Your task to perform on an android device: change the clock display to analog Image 0: 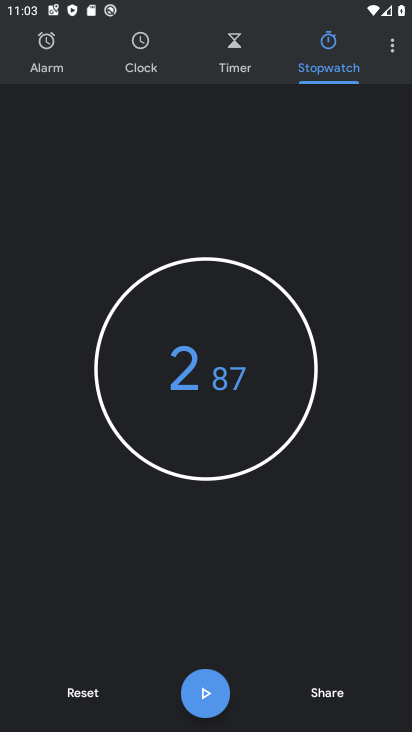
Step 0: click (393, 51)
Your task to perform on an android device: change the clock display to analog Image 1: 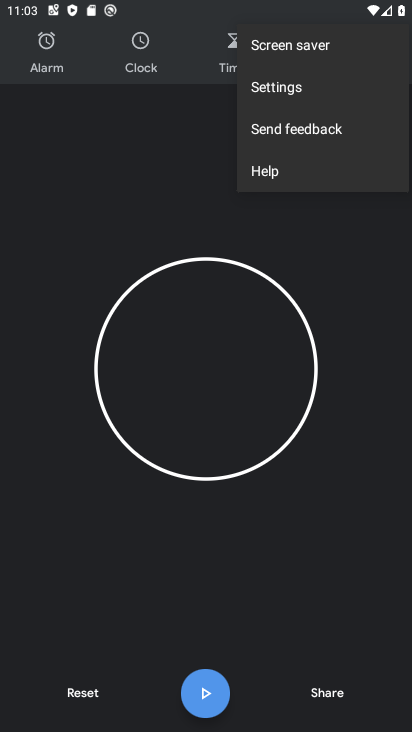
Step 1: click (259, 96)
Your task to perform on an android device: change the clock display to analog Image 2: 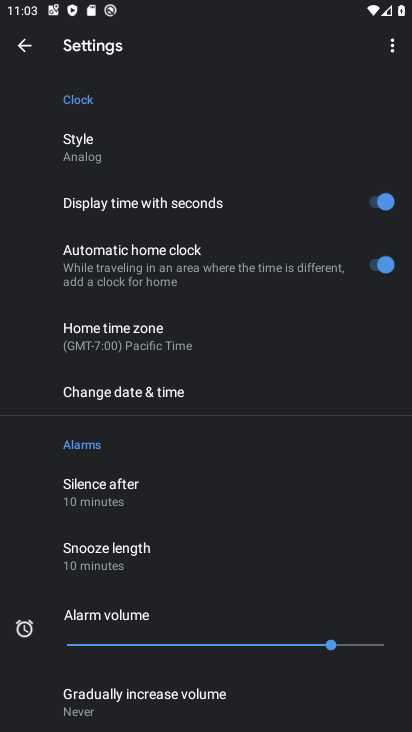
Step 2: click (92, 151)
Your task to perform on an android device: change the clock display to analog Image 3: 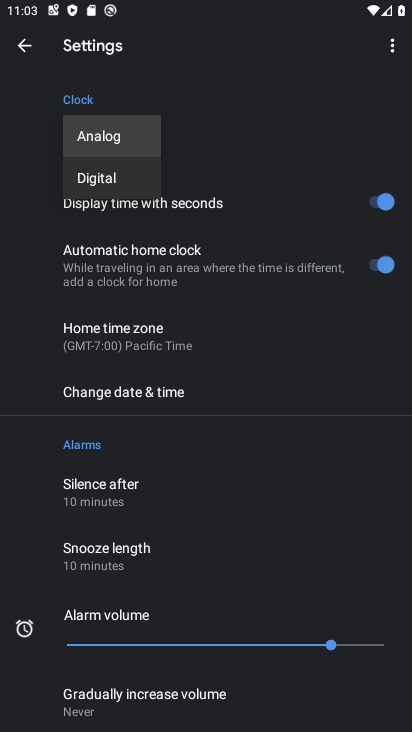
Step 3: task complete